Your task to perform on an android device: Find coffee shops on Maps Image 0: 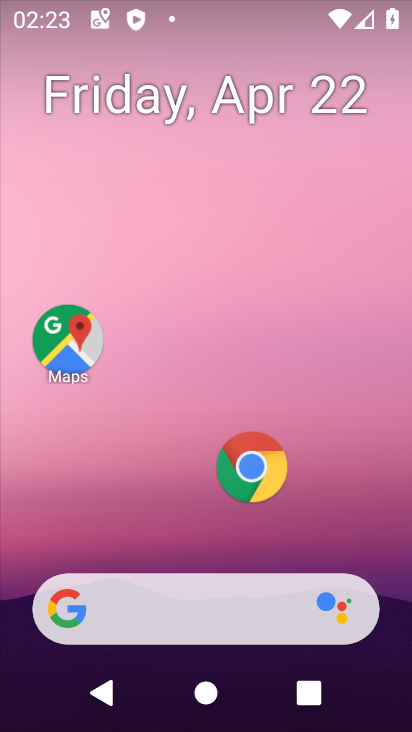
Step 0: click (76, 342)
Your task to perform on an android device: Find coffee shops on Maps Image 1: 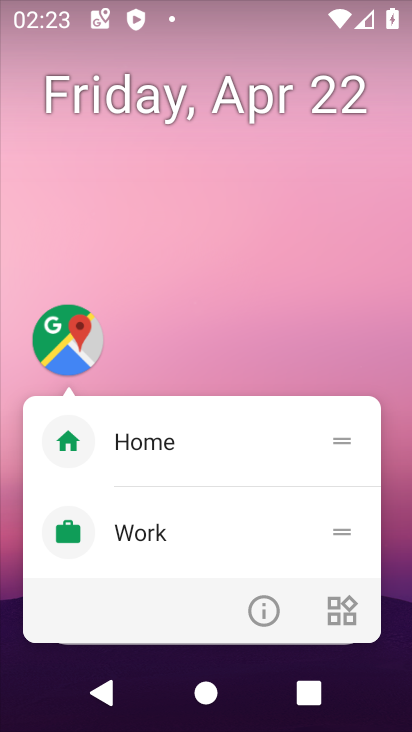
Step 1: click (260, 619)
Your task to perform on an android device: Find coffee shops on Maps Image 2: 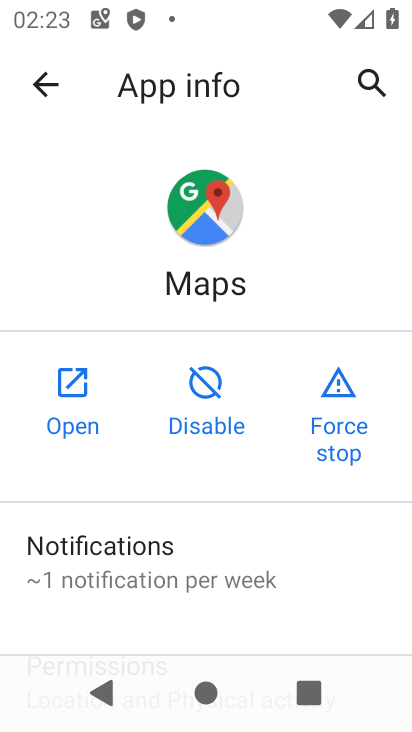
Step 2: click (81, 377)
Your task to perform on an android device: Find coffee shops on Maps Image 3: 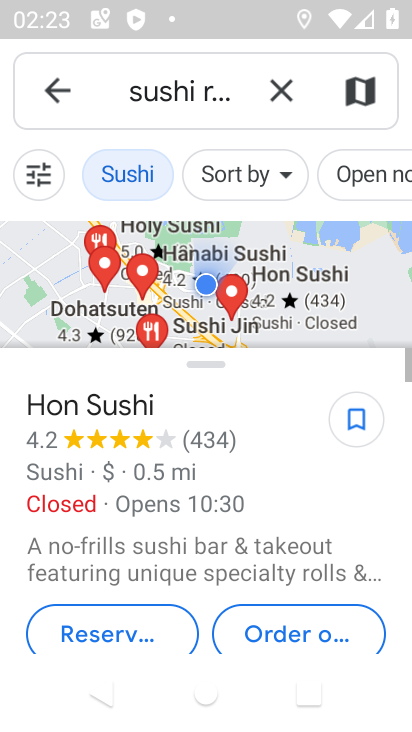
Step 3: click (192, 86)
Your task to perform on an android device: Find coffee shops on Maps Image 4: 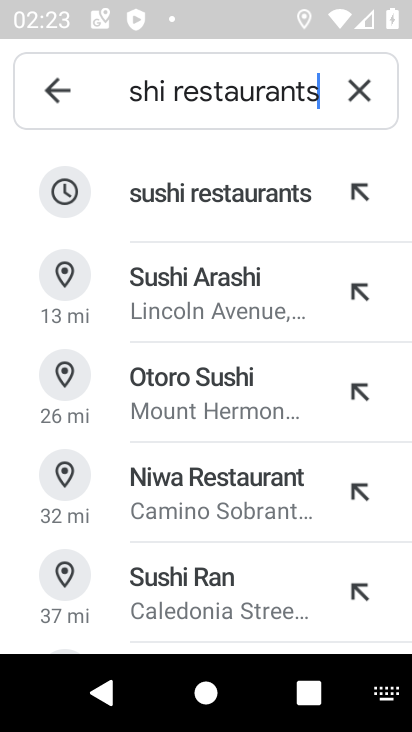
Step 4: click (350, 99)
Your task to perform on an android device: Find coffee shops on Maps Image 5: 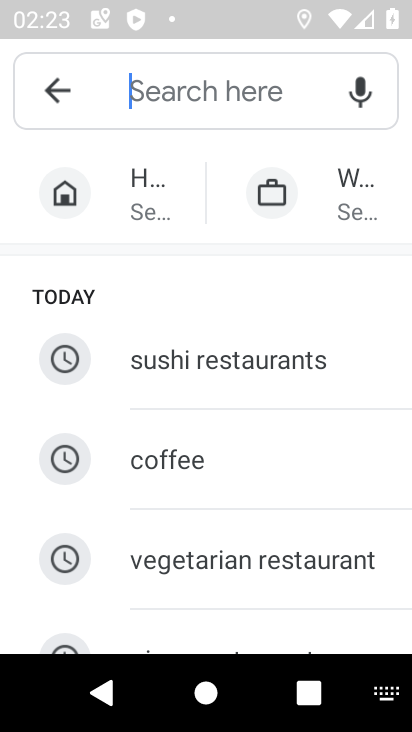
Step 5: type "coffee shops"
Your task to perform on an android device: Find coffee shops on Maps Image 6: 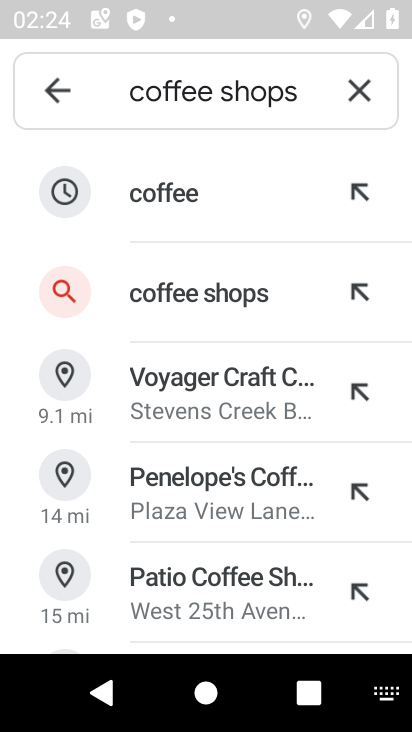
Step 6: click (203, 285)
Your task to perform on an android device: Find coffee shops on Maps Image 7: 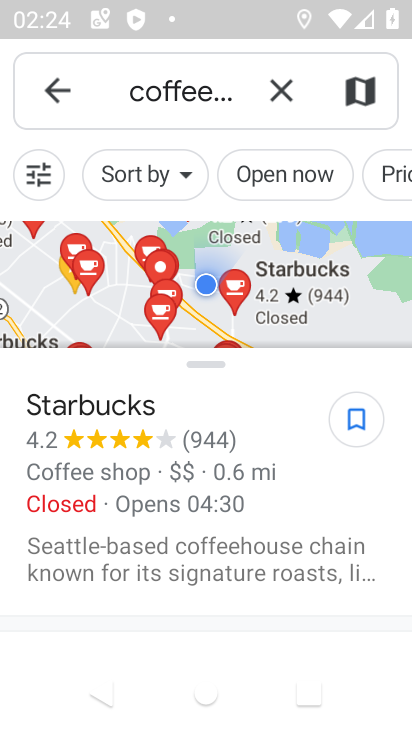
Step 7: task complete